Your task to perform on an android device: turn pop-ups on in chrome Image 0: 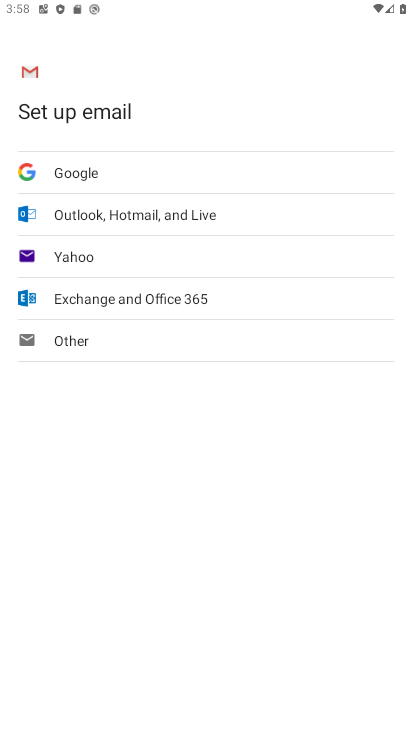
Step 0: press back button
Your task to perform on an android device: turn pop-ups on in chrome Image 1: 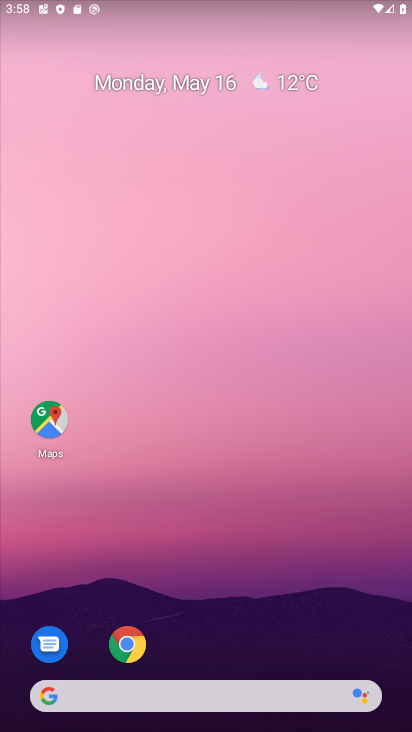
Step 1: click (133, 648)
Your task to perform on an android device: turn pop-ups on in chrome Image 2: 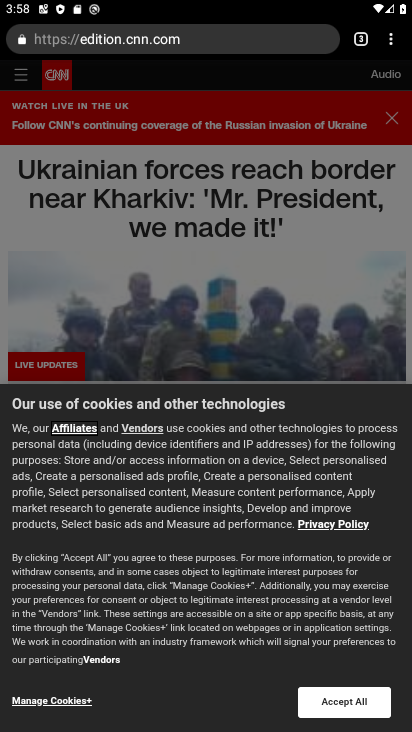
Step 2: drag from (392, 41) to (259, 468)
Your task to perform on an android device: turn pop-ups on in chrome Image 3: 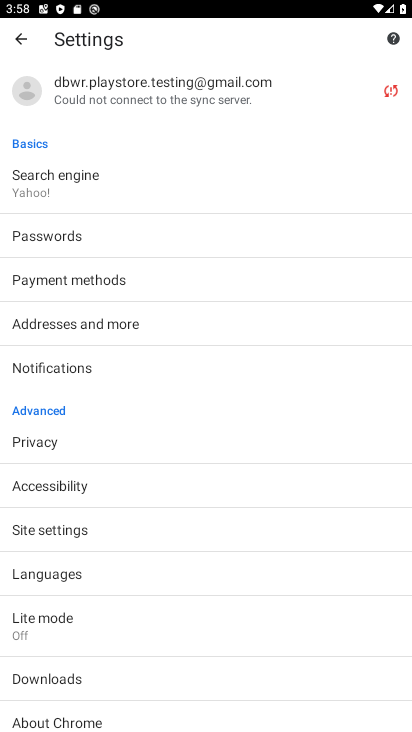
Step 3: click (122, 528)
Your task to perform on an android device: turn pop-ups on in chrome Image 4: 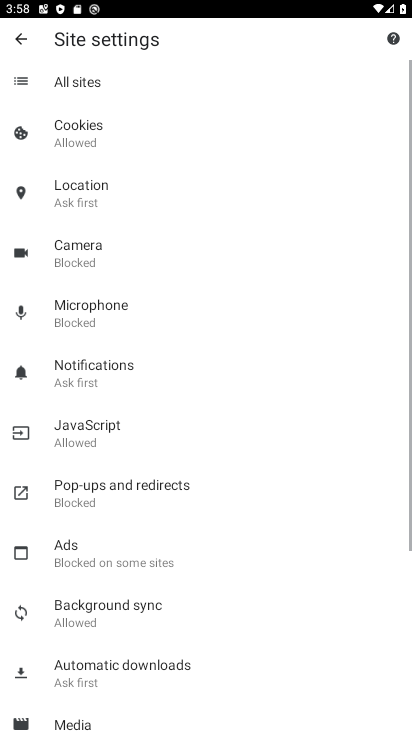
Step 4: click (113, 498)
Your task to perform on an android device: turn pop-ups on in chrome Image 5: 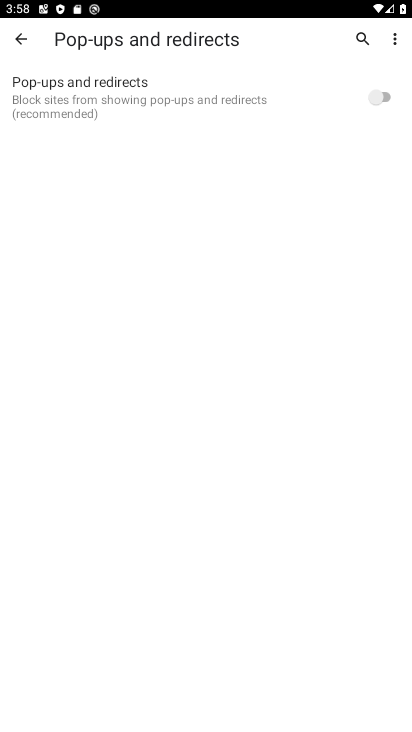
Step 5: click (375, 92)
Your task to perform on an android device: turn pop-ups on in chrome Image 6: 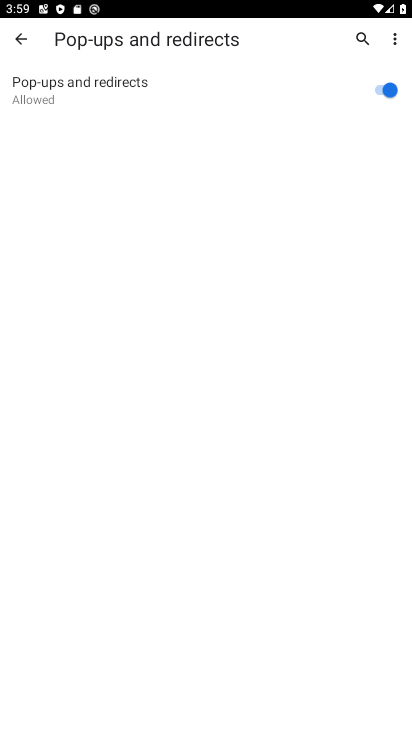
Step 6: task complete